Your task to perform on an android device: Open privacy settings Image 0: 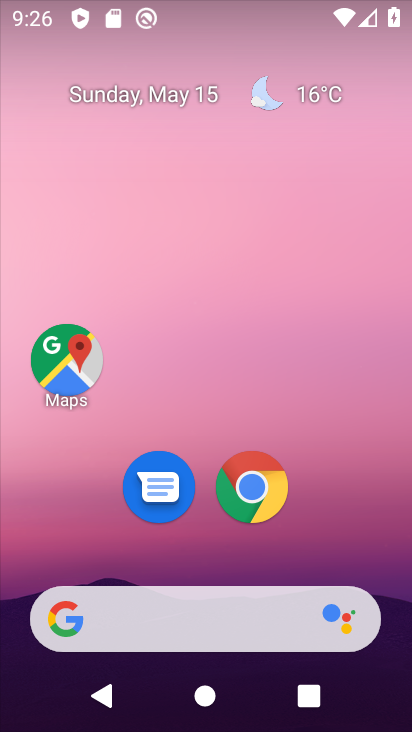
Step 0: drag from (385, 599) to (327, 66)
Your task to perform on an android device: Open privacy settings Image 1: 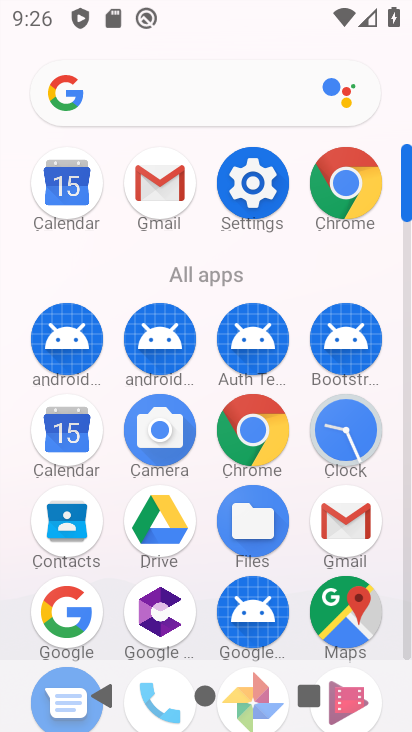
Step 1: click (406, 652)
Your task to perform on an android device: Open privacy settings Image 2: 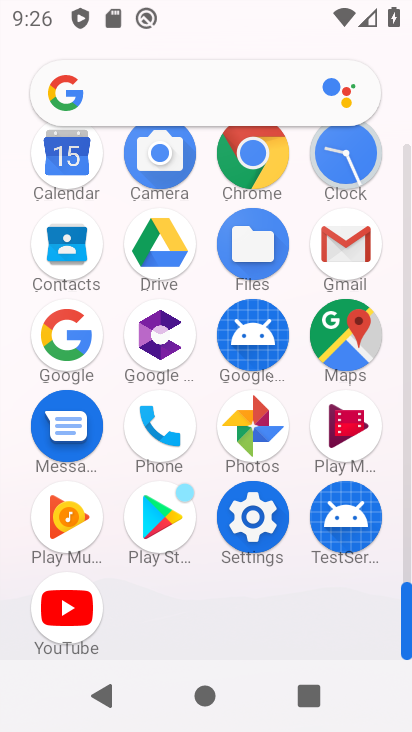
Step 2: click (252, 517)
Your task to perform on an android device: Open privacy settings Image 3: 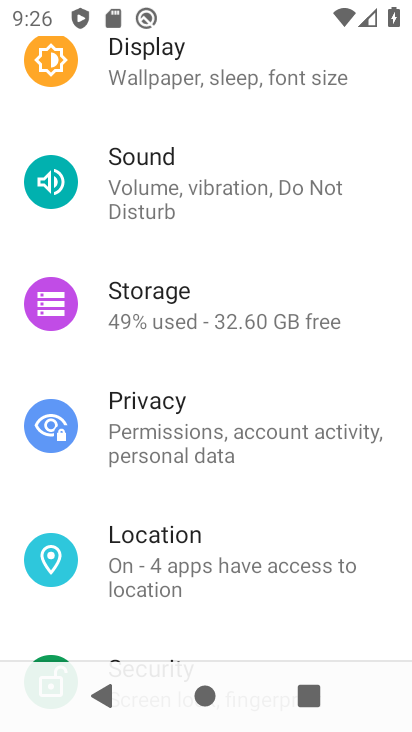
Step 3: click (153, 422)
Your task to perform on an android device: Open privacy settings Image 4: 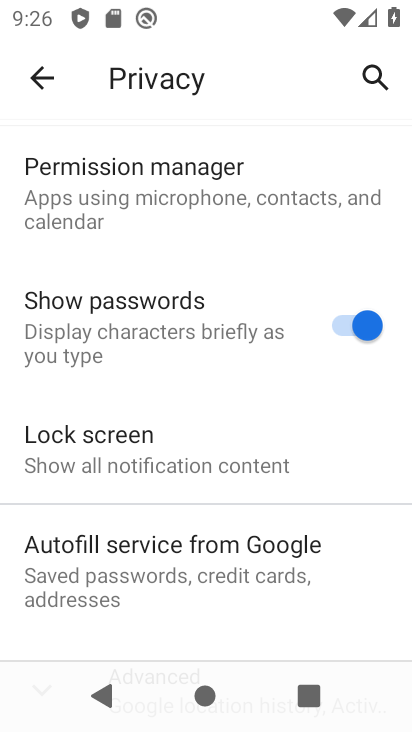
Step 4: drag from (268, 547) to (247, 202)
Your task to perform on an android device: Open privacy settings Image 5: 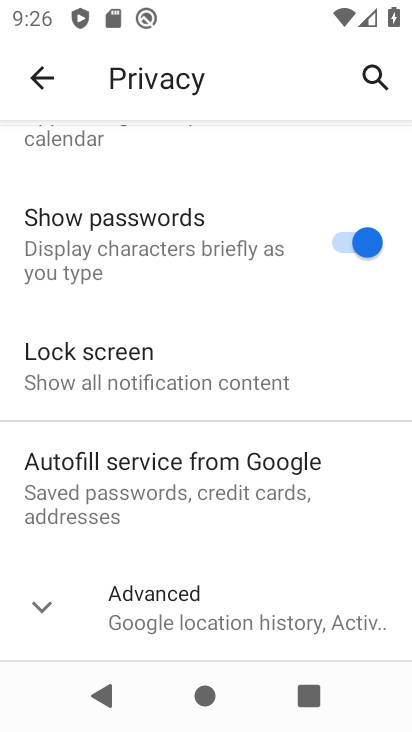
Step 5: click (23, 615)
Your task to perform on an android device: Open privacy settings Image 6: 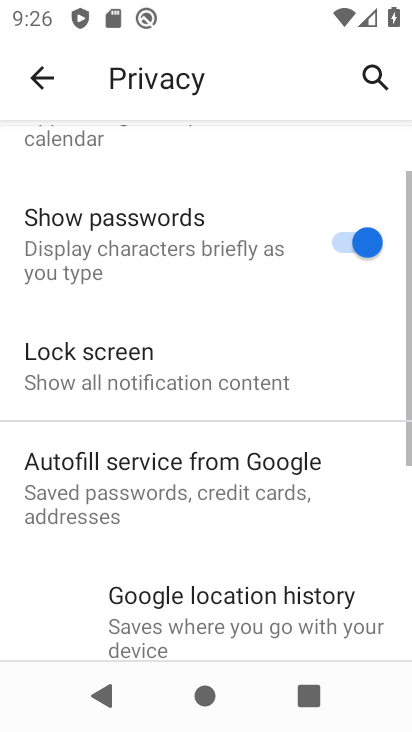
Step 6: task complete